Your task to perform on an android device: uninstall "Roku - Official Remote Control" Image 0: 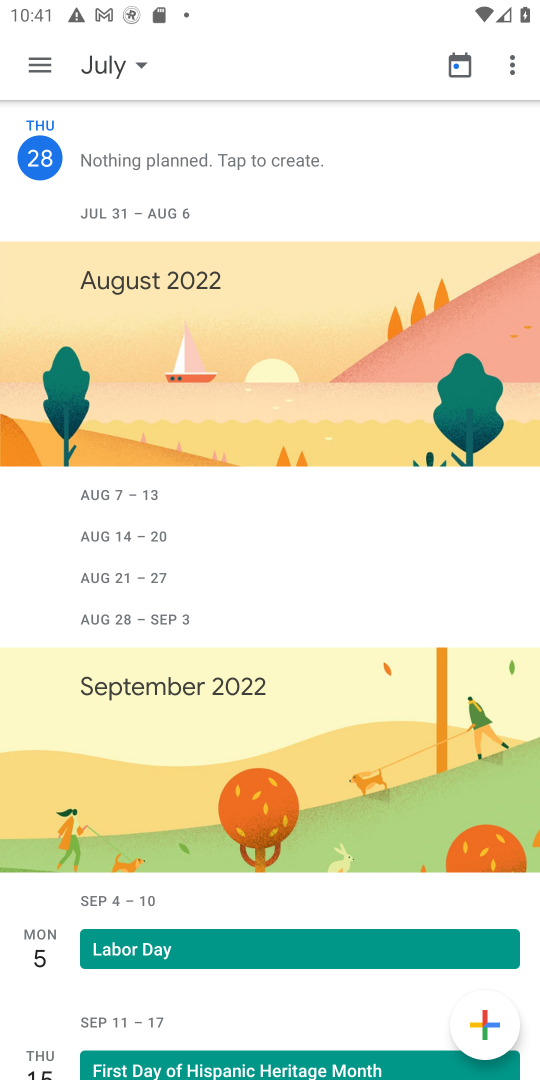
Step 0: press home button
Your task to perform on an android device: uninstall "Roku - Official Remote Control" Image 1: 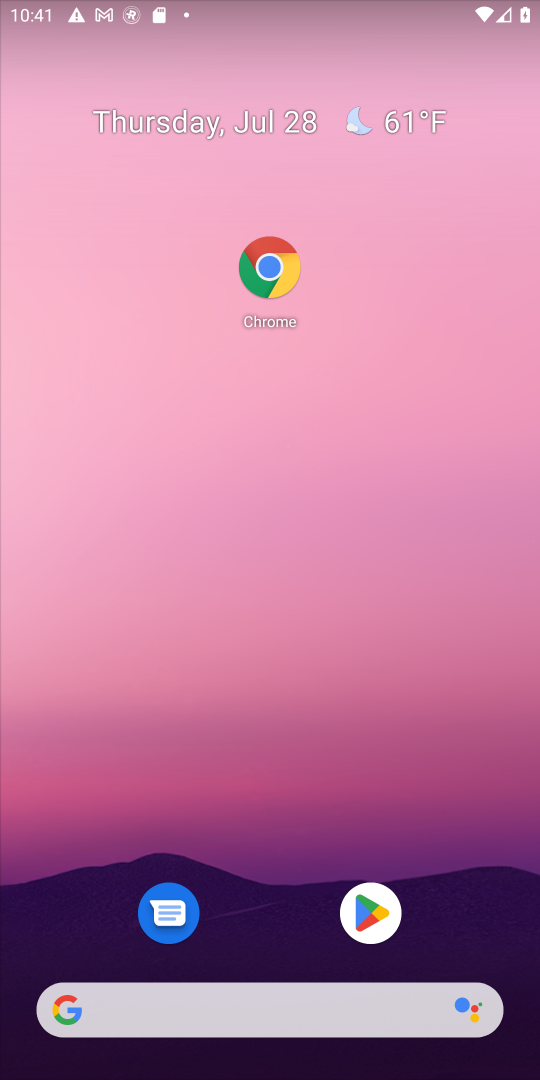
Step 1: click (383, 919)
Your task to perform on an android device: uninstall "Roku - Official Remote Control" Image 2: 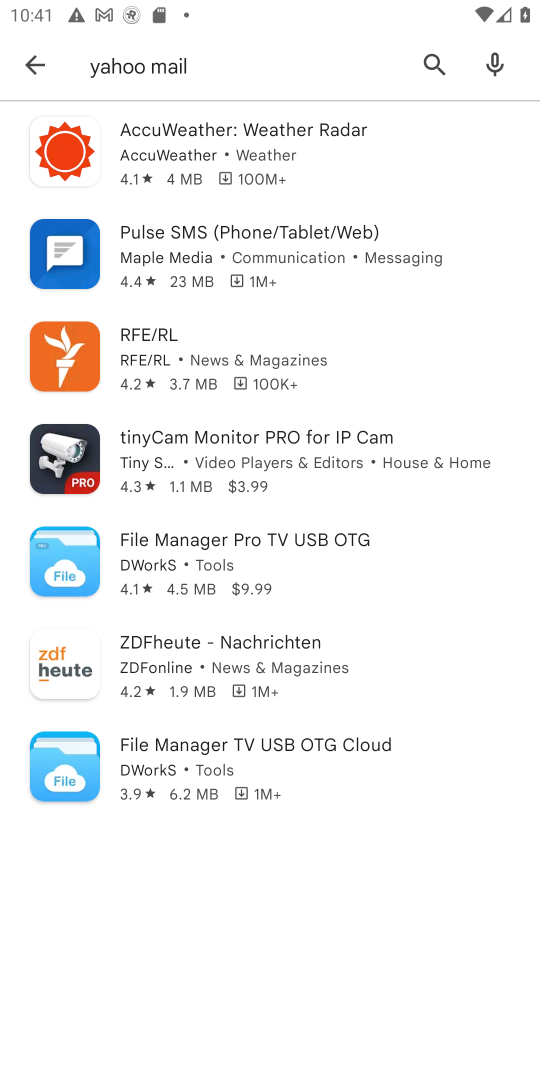
Step 2: click (426, 58)
Your task to perform on an android device: uninstall "Roku - Official Remote Control" Image 3: 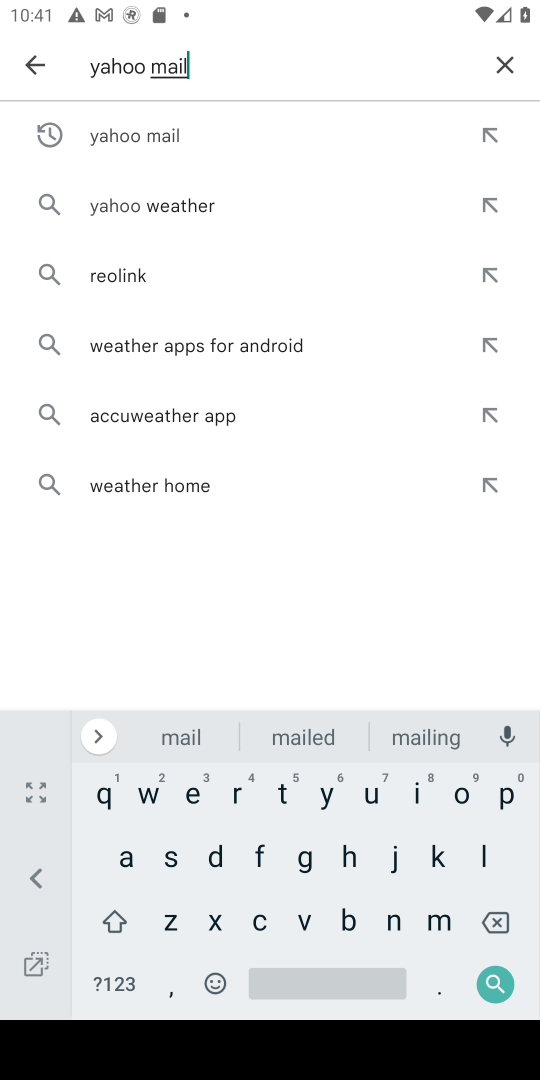
Step 3: click (507, 61)
Your task to perform on an android device: uninstall "Roku - Official Remote Control" Image 4: 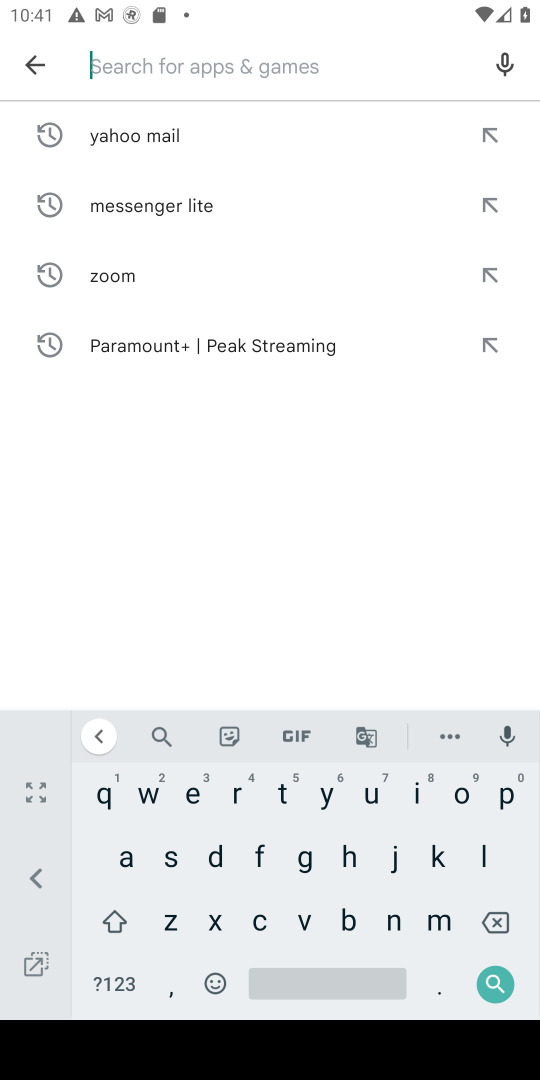
Step 4: click (232, 794)
Your task to perform on an android device: uninstall "Roku - Official Remote Control" Image 5: 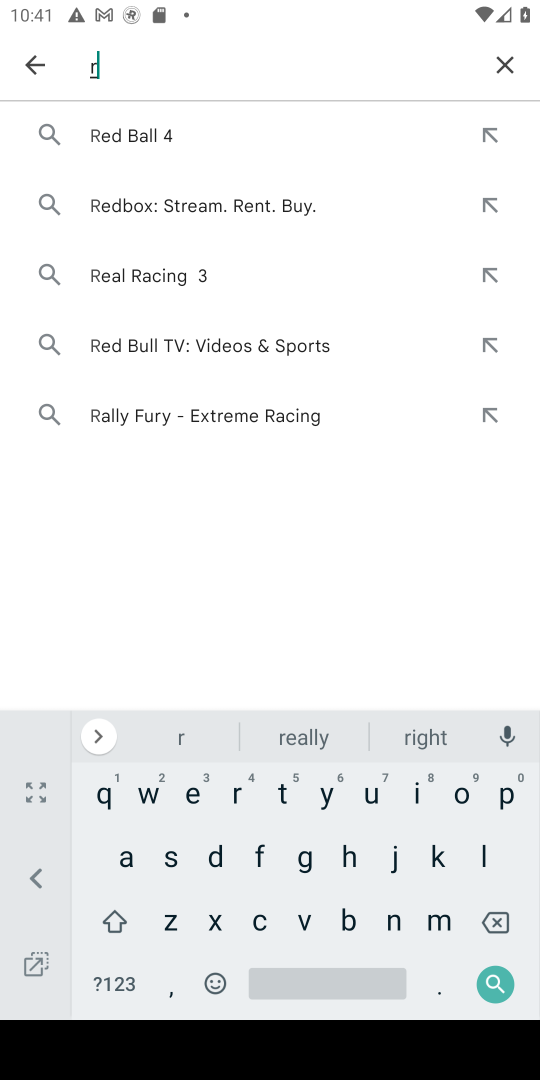
Step 5: click (464, 790)
Your task to perform on an android device: uninstall "Roku - Official Remote Control" Image 6: 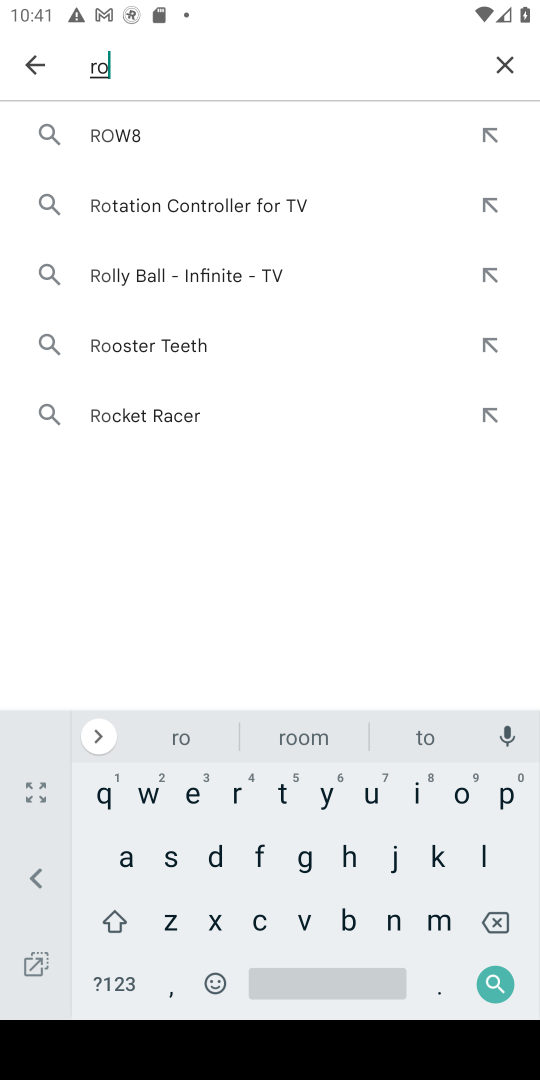
Step 6: click (433, 849)
Your task to perform on an android device: uninstall "Roku - Official Remote Control" Image 7: 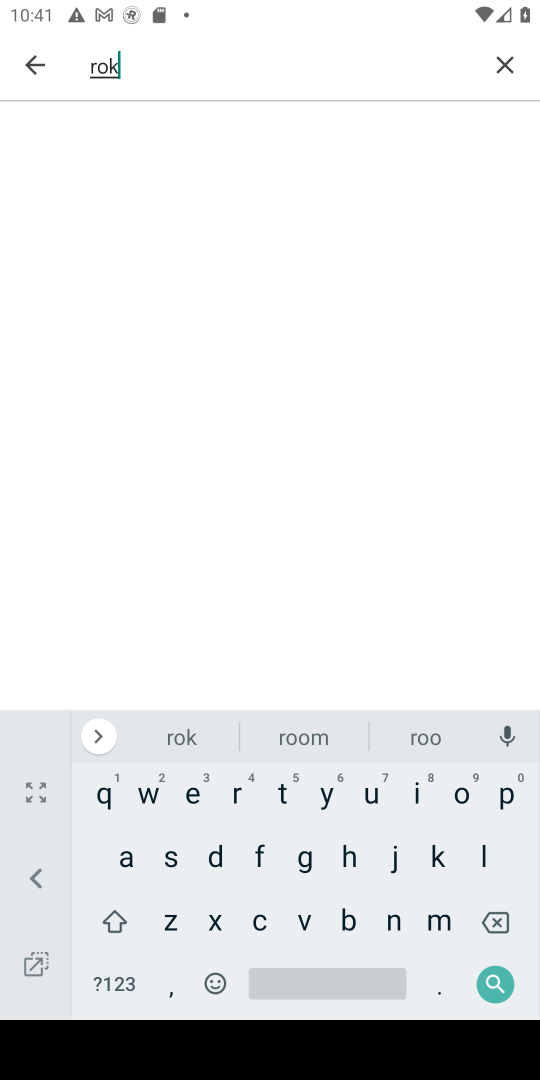
Step 7: click (368, 798)
Your task to perform on an android device: uninstall "Roku - Official Remote Control" Image 8: 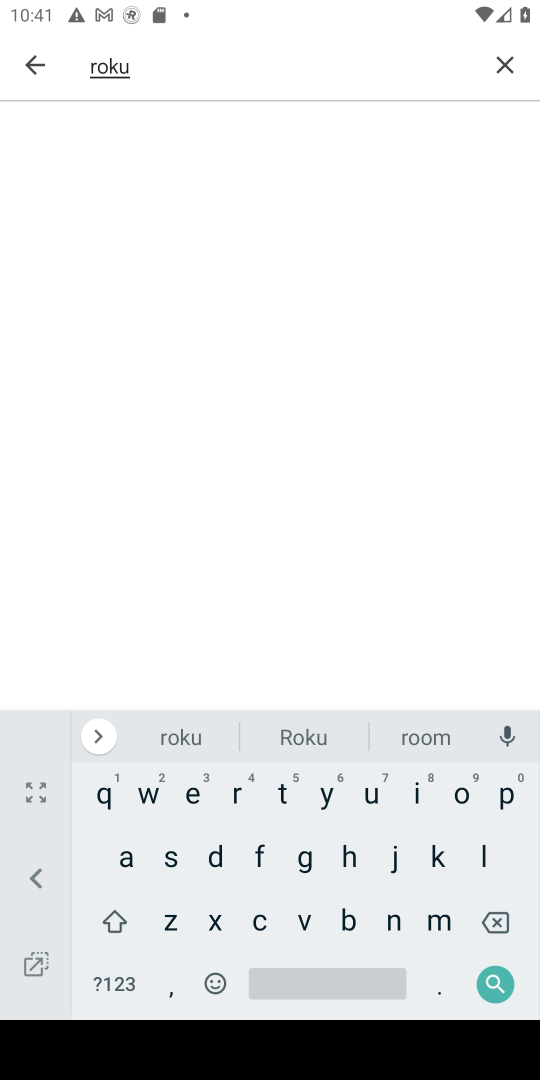
Step 8: click (492, 979)
Your task to perform on an android device: uninstall "Roku - Official Remote Control" Image 9: 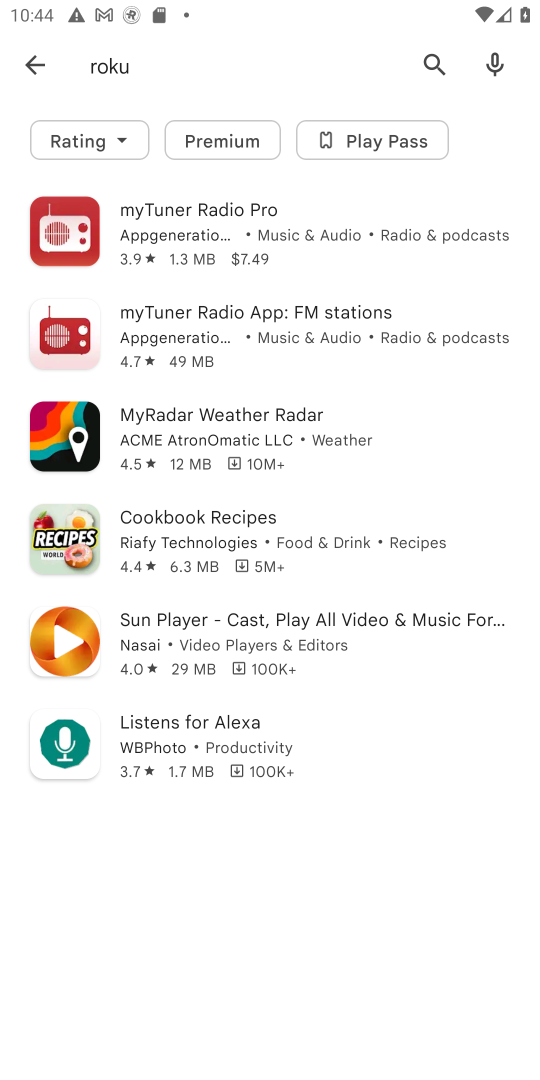
Step 9: task complete